Your task to perform on an android device: Go to Android settings Image 0: 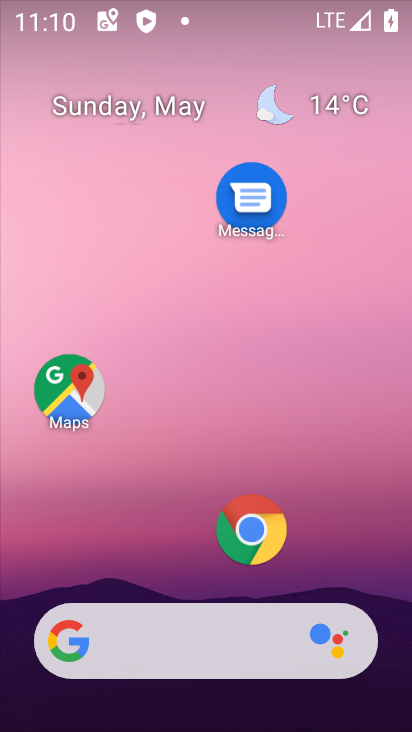
Step 0: drag from (173, 573) to (222, 211)
Your task to perform on an android device: Go to Android settings Image 1: 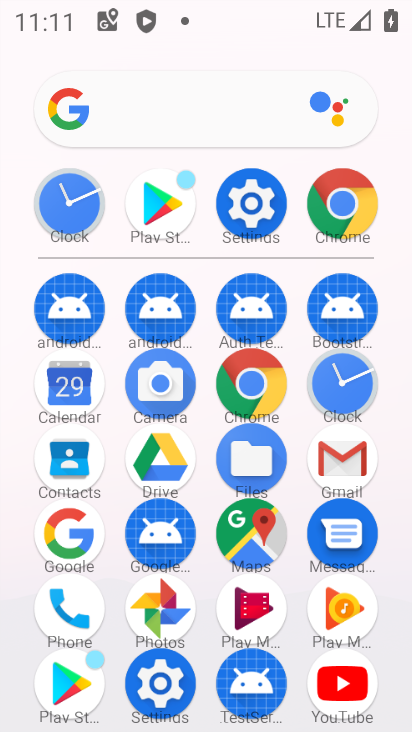
Step 1: click (147, 678)
Your task to perform on an android device: Go to Android settings Image 2: 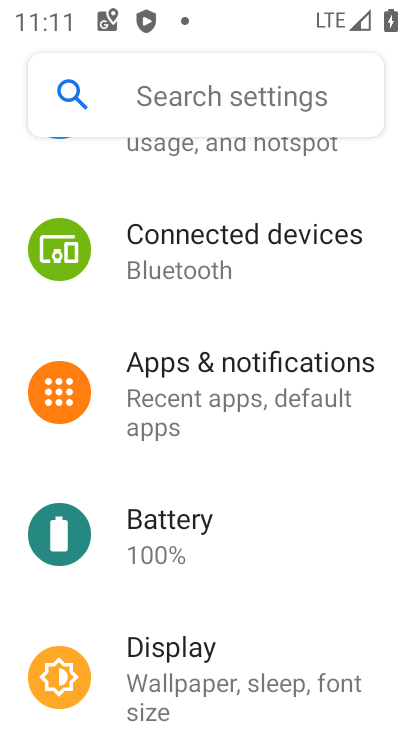
Step 2: drag from (253, 631) to (342, 308)
Your task to perform on an android device: Go to Android settings Image 3: 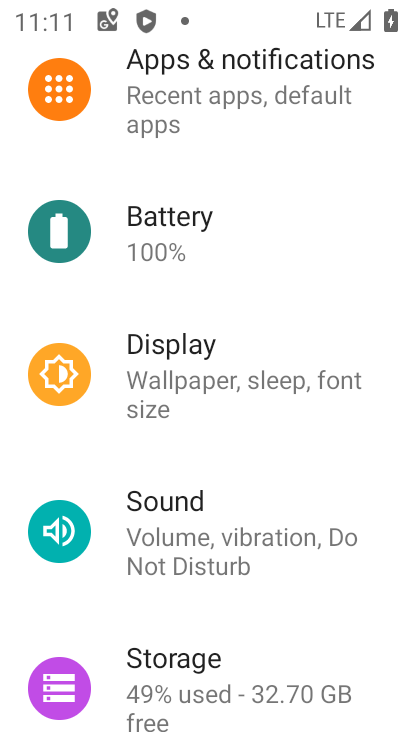
Step 3: drag from (276, 672) to (274, 384)
Your task to perform on an android device: Go to Android settings Image 4: 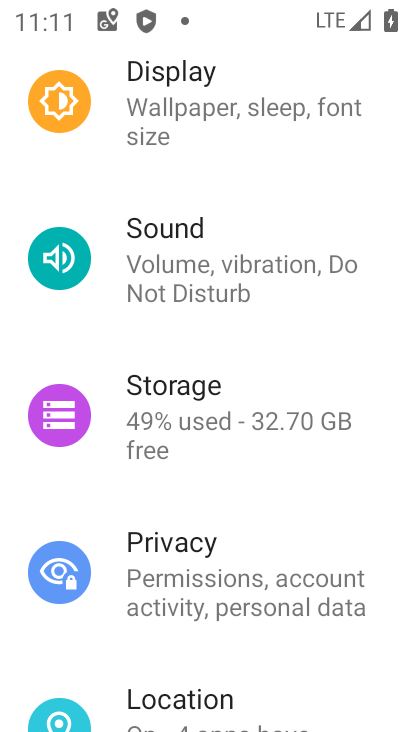
Step 4: drag from (218, 723) to (258, 325)
Your task to perform on an android device: Go to Android settings Image 5: 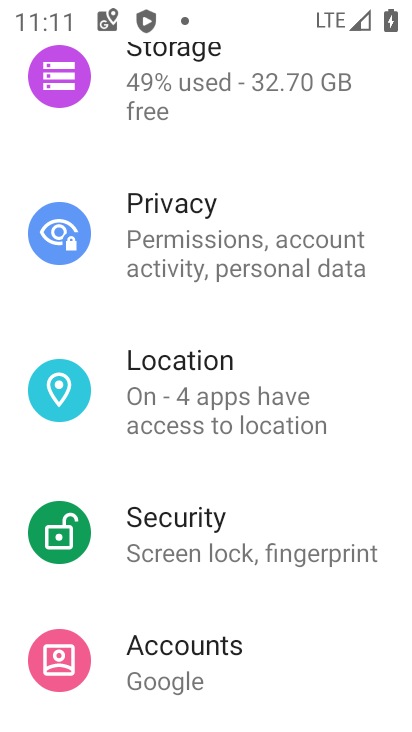
Step 5: drag from (236, 712) to (242, 255)
Your task to perform on an android device: Go to Android settings Image 6: 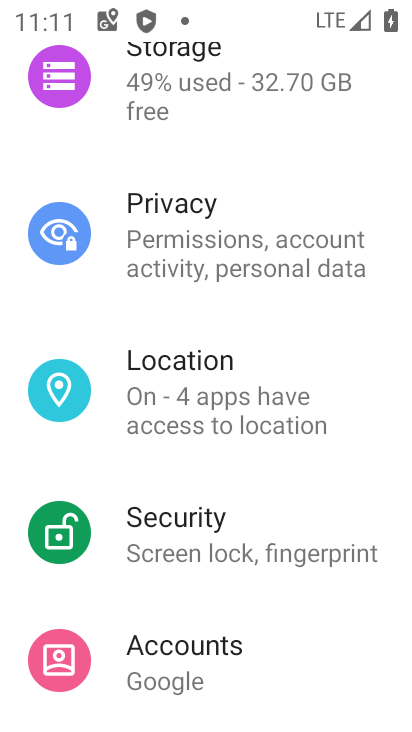
Step 6: drag from (232, 719) to (232, 4)
Your task to perform on an android device: Go to Android settings Image 7: 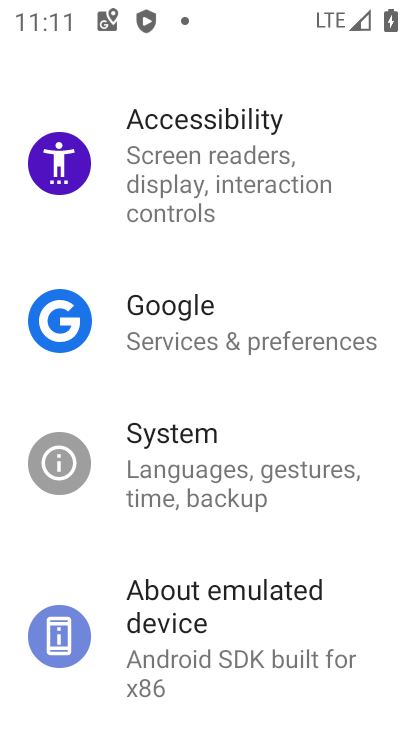
Step 7: click (218, 635)
Your task to perform on an android device: Go to Android settings Image 8: 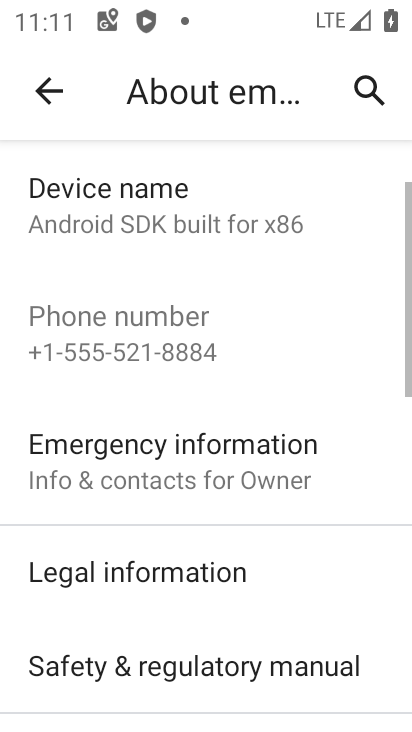
Step 8: task complete